Your task to perform on an android device: change the upload size in google photos Image 0: 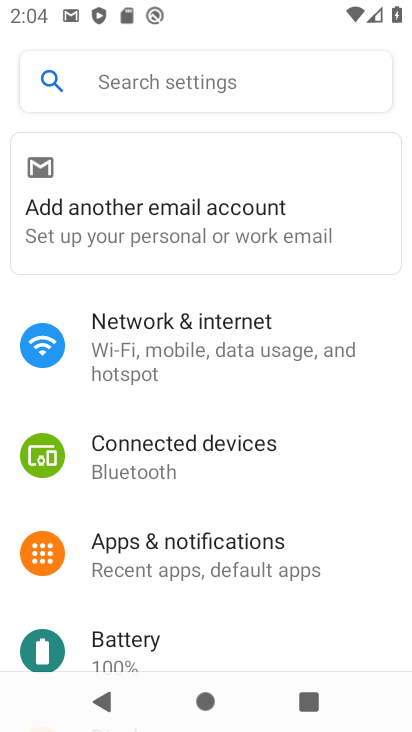
Step 0: press home button
Your task to perform on an android device: change the upload size in google photos Image 1: 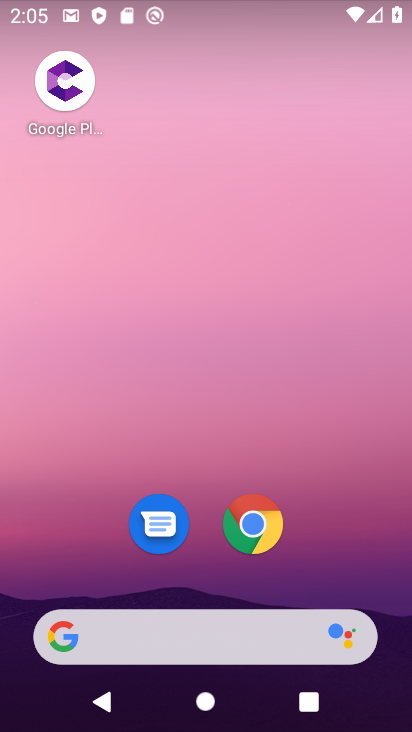
Step 1: drag from (185, 625) to (304, 71)
Your task to perform on an android device: change the upload size in google photos Image 2: 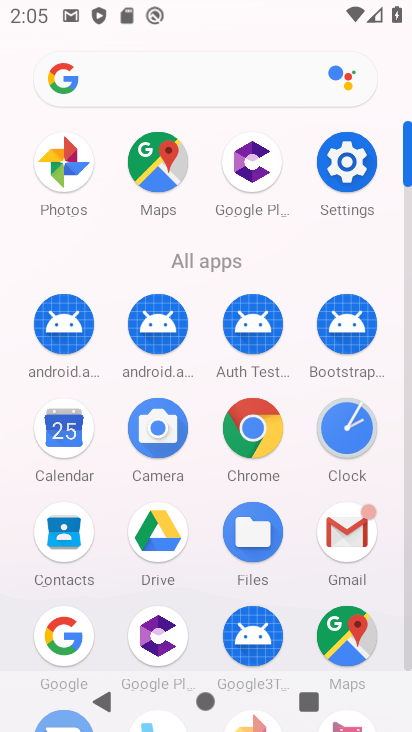
Step 2: drag from (213, 577) to (363, 60)
Your task to perform on an android device: change the upload size in google photos Image 3: 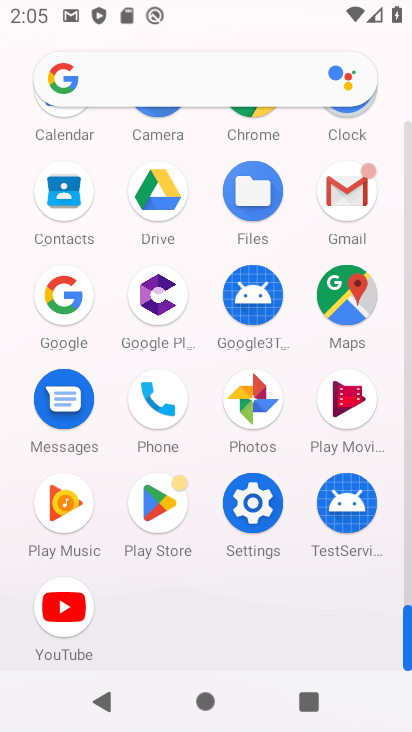
Step 3: click (244, 416)
Your task to perform on an android device: change the upload size in google photos Image 4: 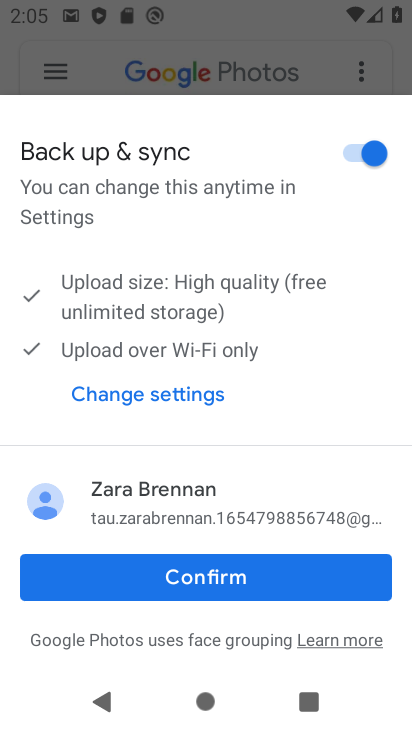
Step 4: click (216, 576)
Your task to perform on an android device: change the upload size in google photos Image 5: 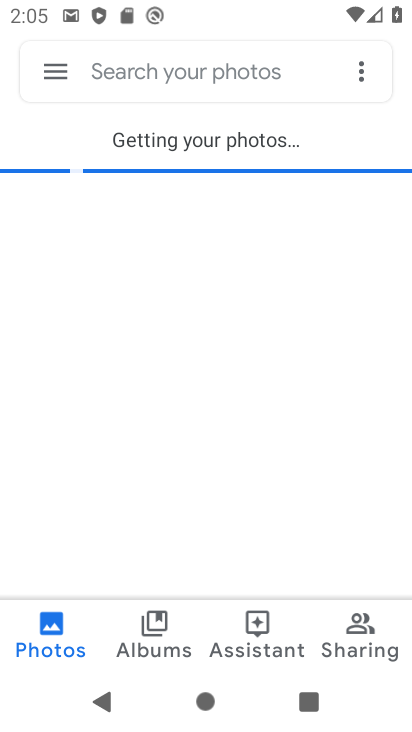
Step 5: click (61, 71)
Your task to perform on an android device: change the upload size in google photos Image 6: 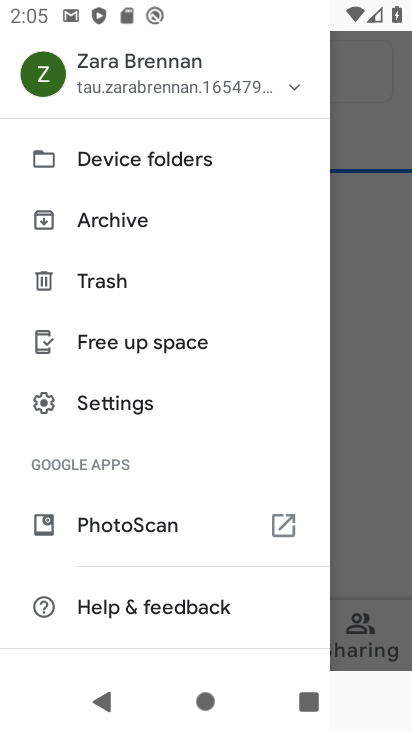
Step 6: click (150, 398)
Your task to perform on an android device: change the upload size in google photos Image 7: 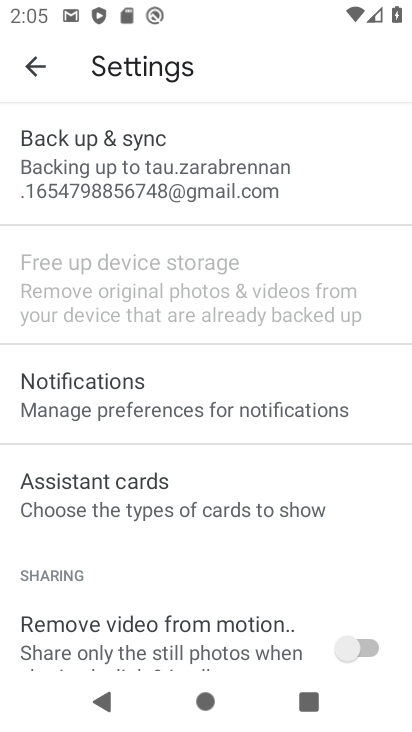
Step 7: click (208, 182)
Your task to perform on an android device: change the upload size in google photos Image 8: 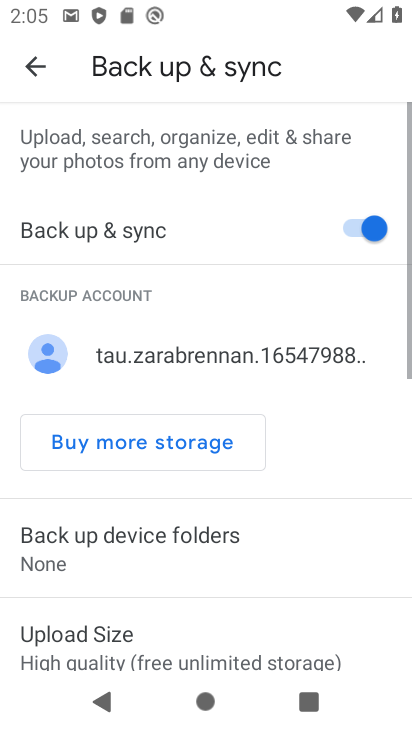
Step 8: drag from (210, 552) to (321, 127)
Your task to perform on an android device: change the upload size in google photos Image 9: 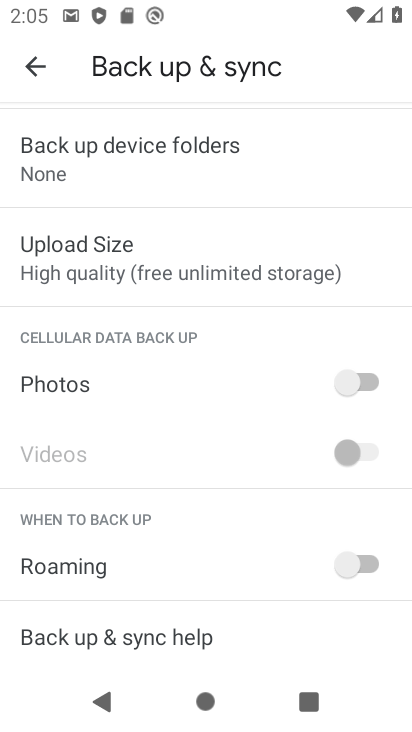
Step 9: click (110, 272)
Your task to perform on an android device: change the upload size in google photos Image 10: 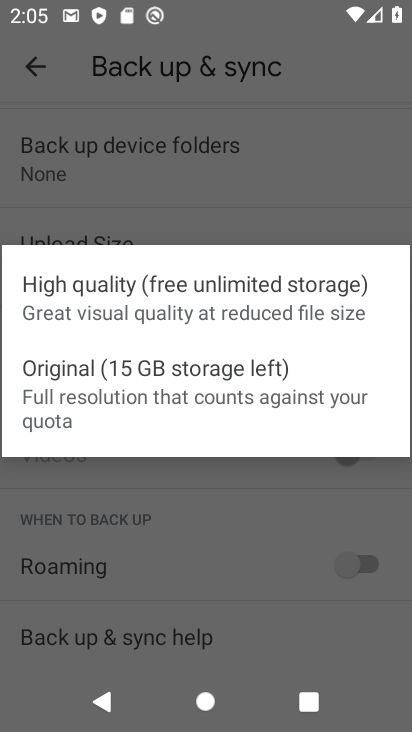
Step 10: click (88, 382)
Your task to perform on an android device: change the upload size in google photos Image 11: 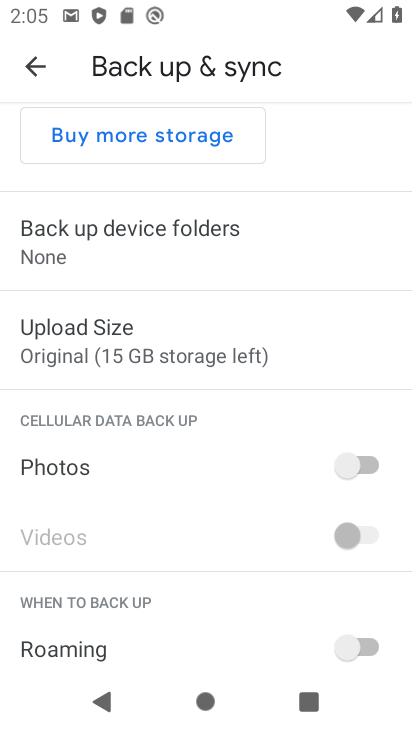
Step 11: task complete